Your task to perform on an android device: add a contact in the contacts app Image 0: 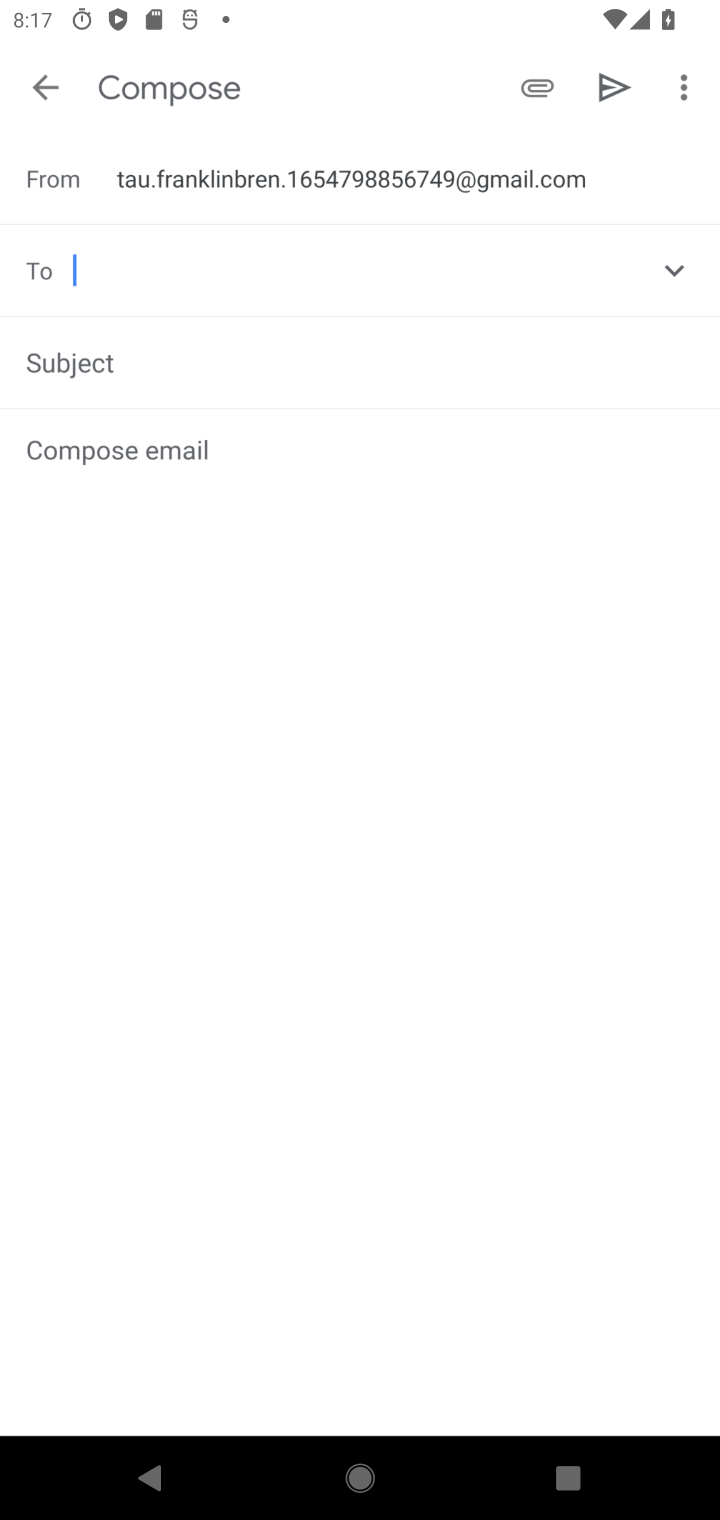
Step 0: press home button
Your task to perform on an android device: add a contact in the contacts app Image 1: 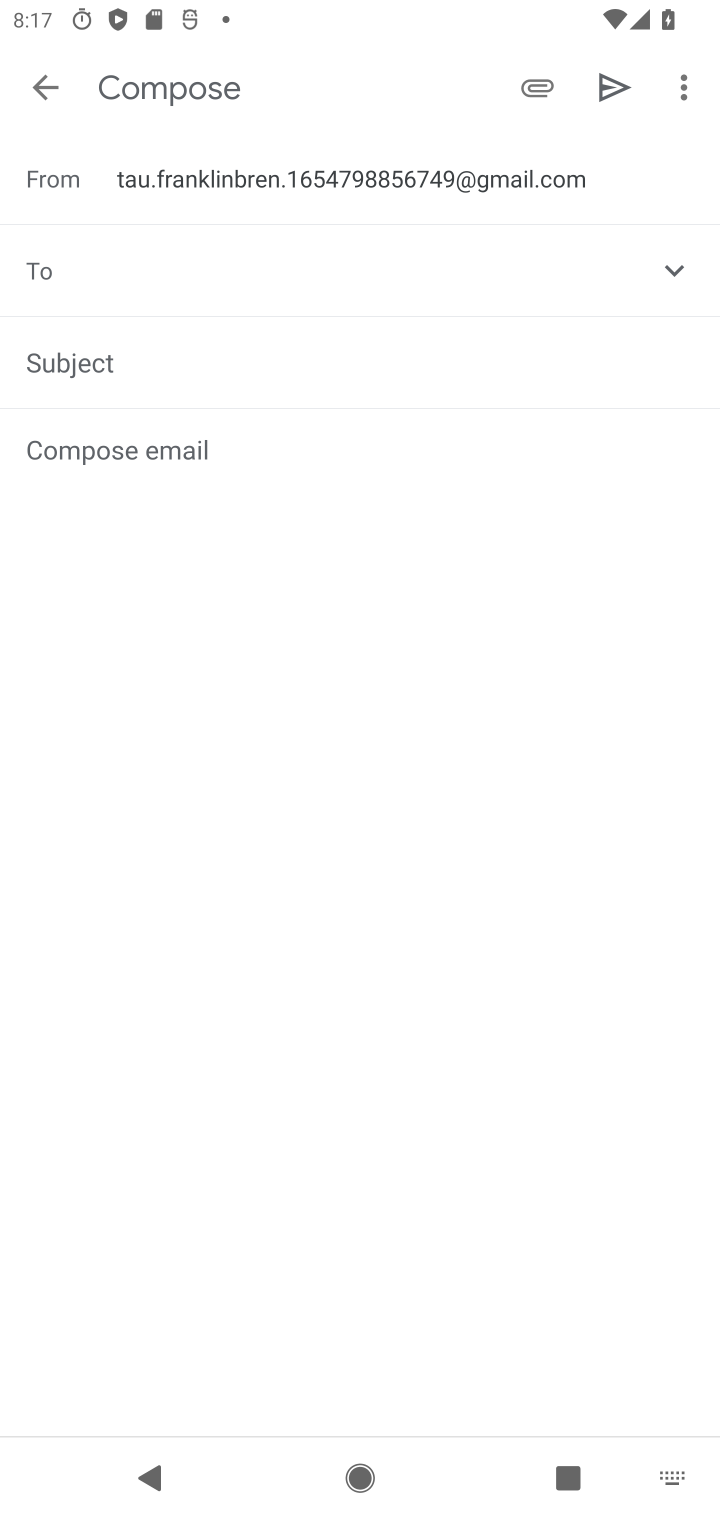
Step 1: press home button
Your task to perform on an android device: add a contact in the contacts app Image 2: 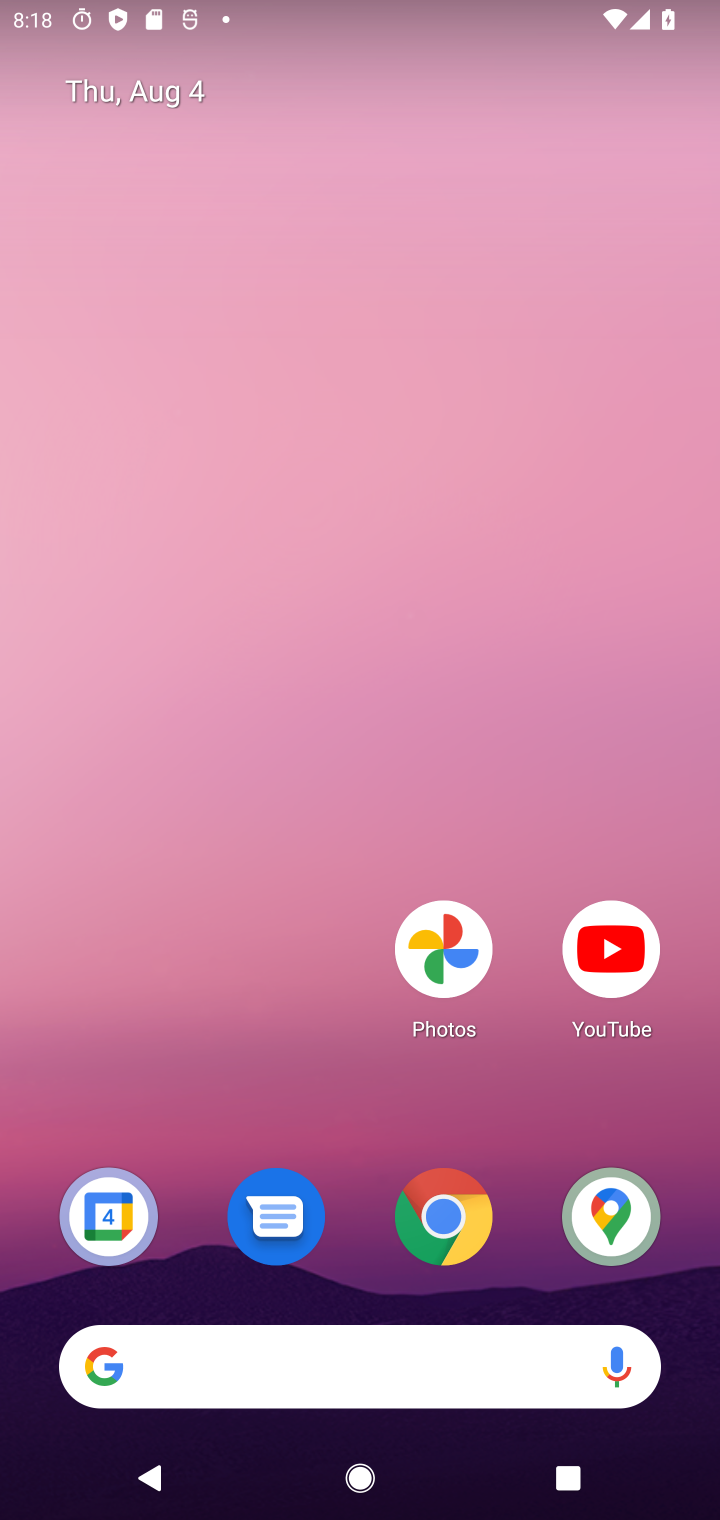
Step 2: drag from (373, 1187) to (353, 261)
Your task to perform on an android device: add a contact in the contacts app Image 3: 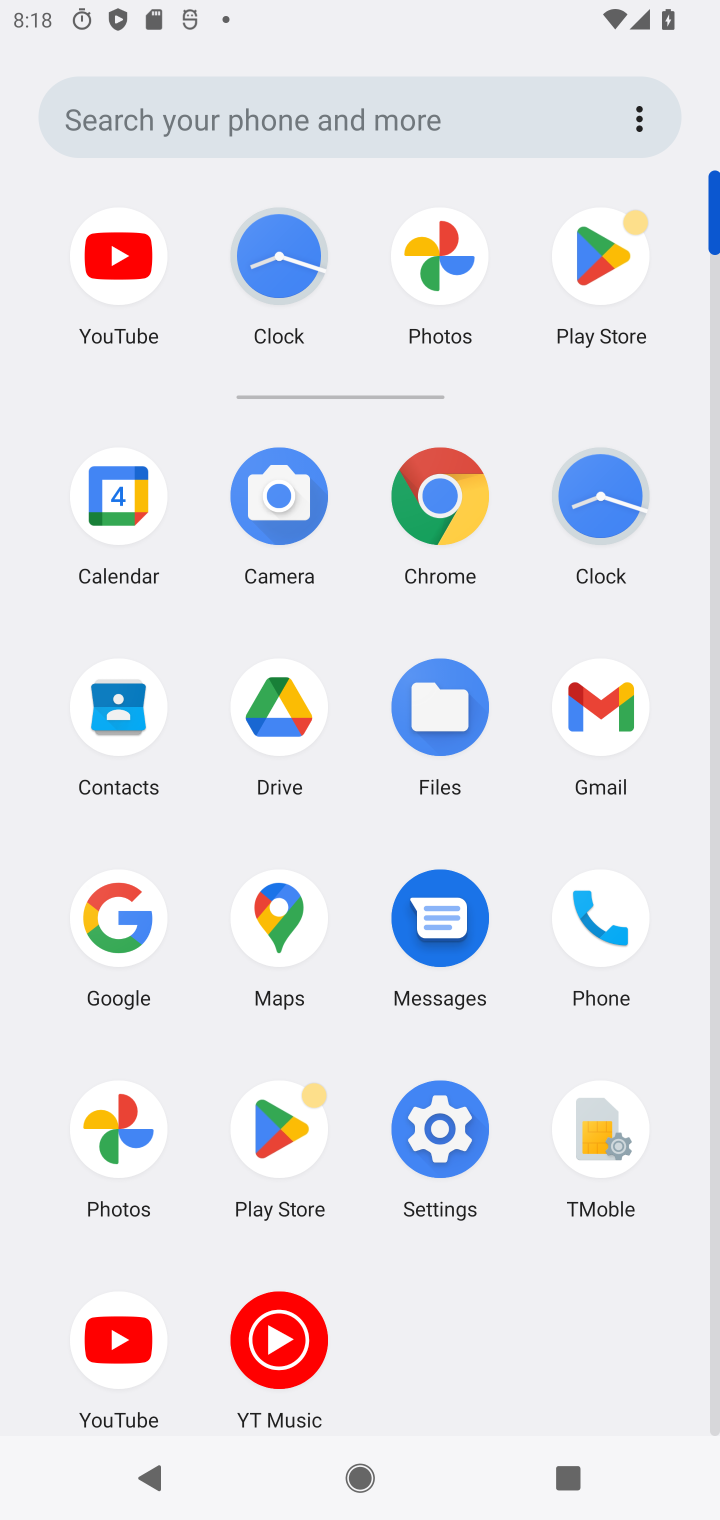
Step 3: click (118, 707)
Your task to perform on an android device: add a contact in the contacts app Image 4: 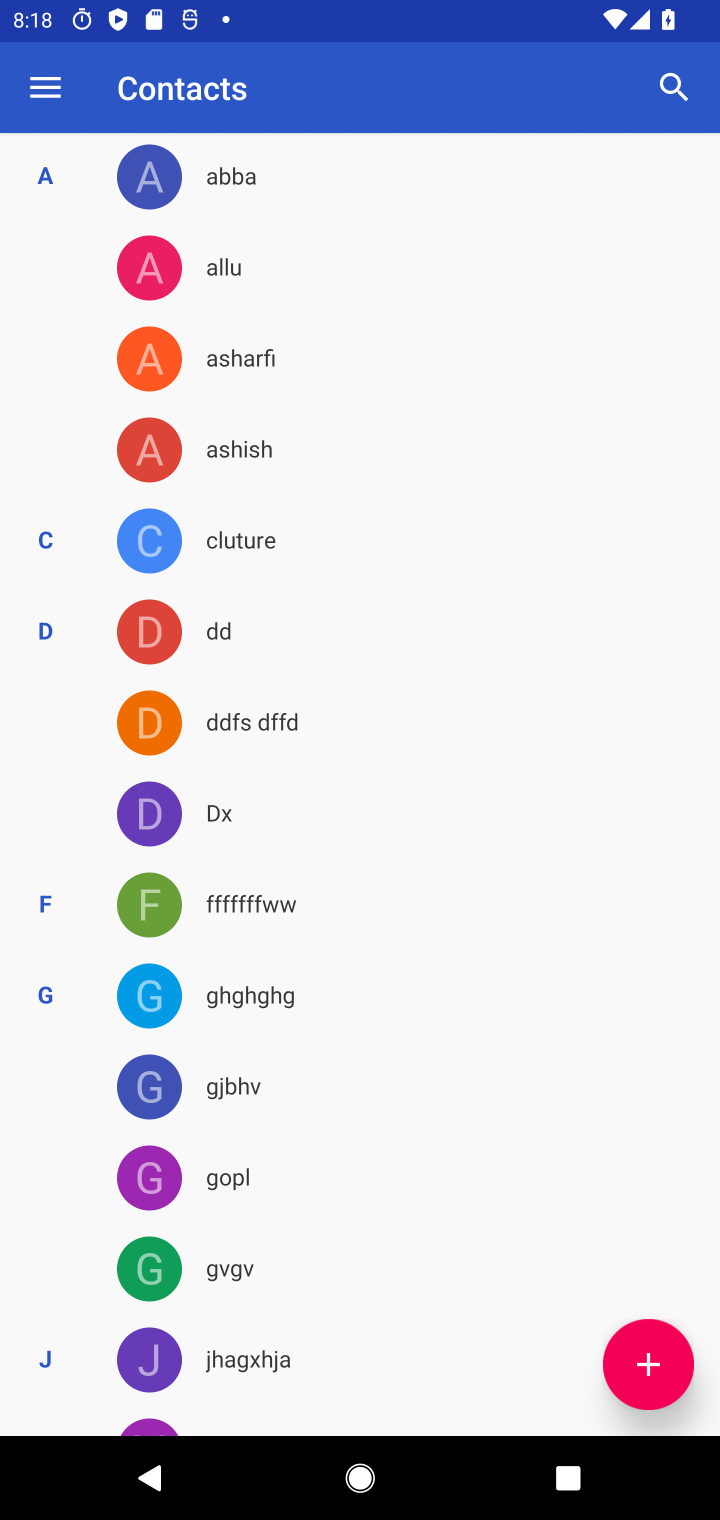
Step 4: click (644, 1367)
Your task to perform on an android device: add a contact in the contacts app Image 5: 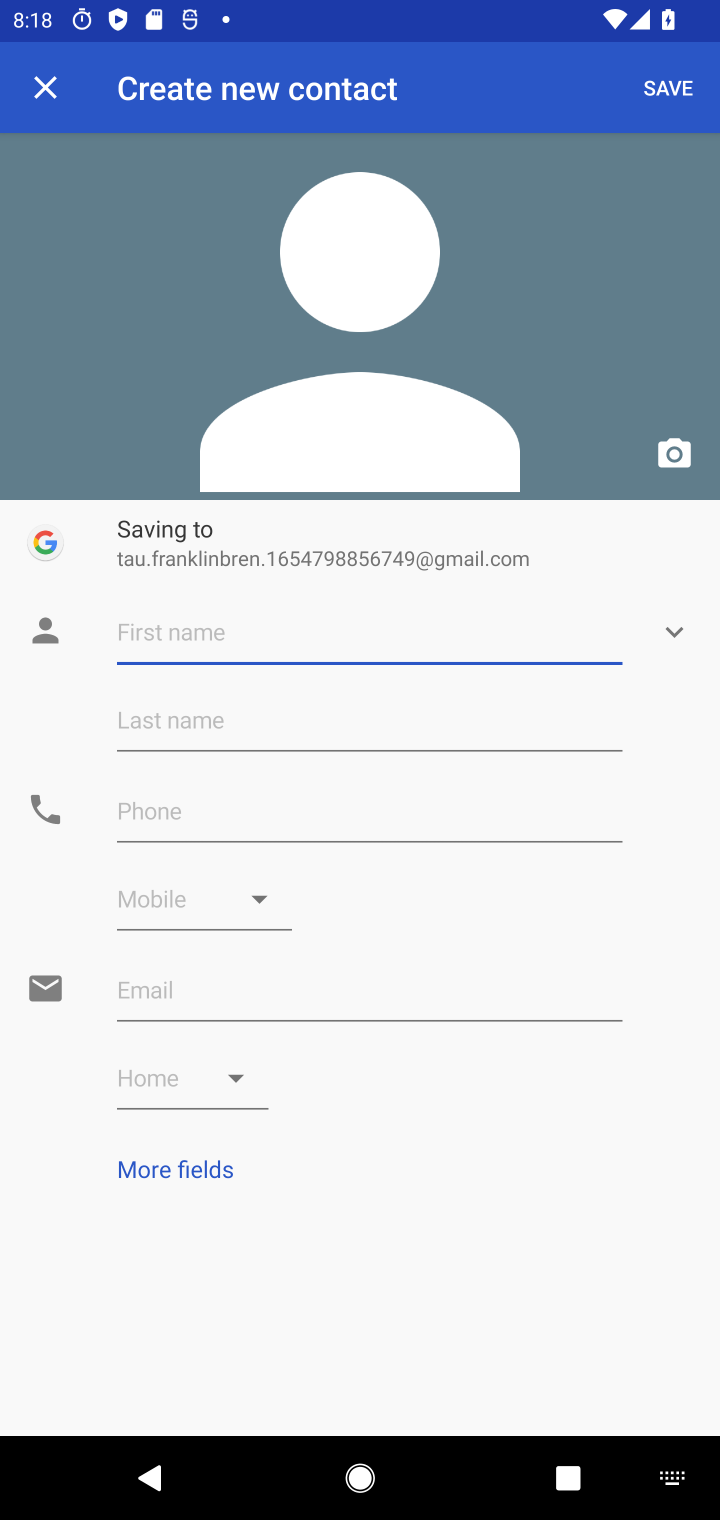
Step 5: type "nikhil nair"
Your task to perform on an android device: add a contact in the contacts app Image 6: 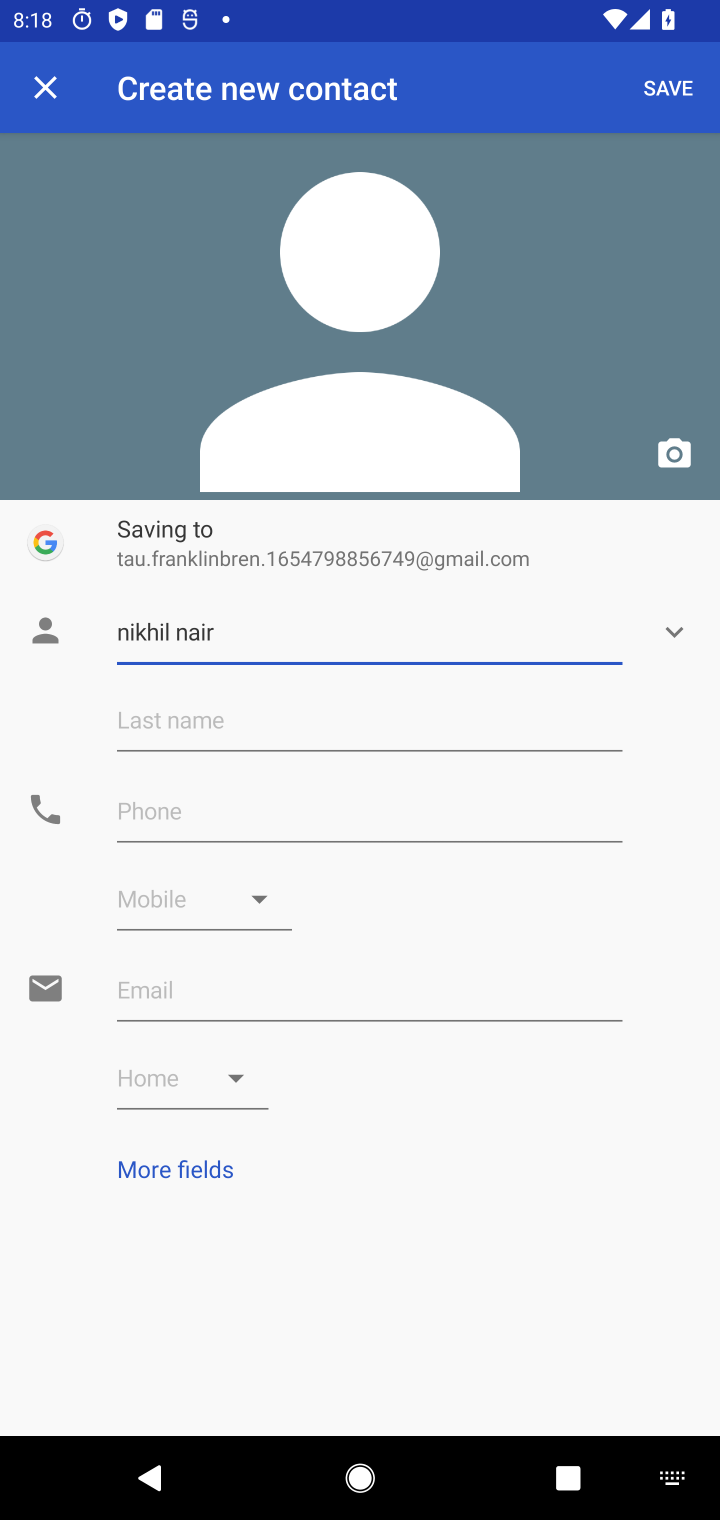
Step 6: click (270, 823)
Your task to perform on an android device: add a contact in the contacts app Image 7: 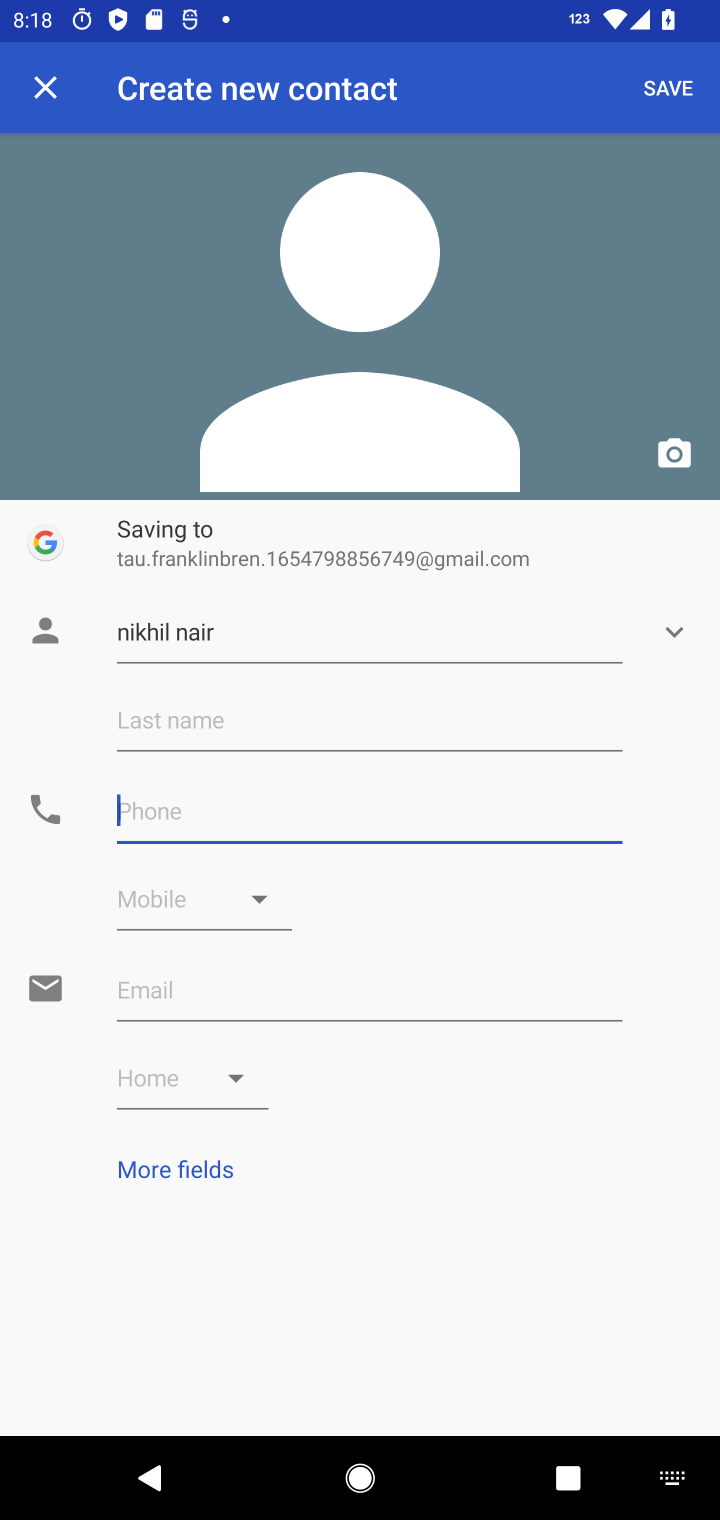
Step 7: type "88948945"
Your task to perform on an android device: add a contact in the contacts app Image 8: 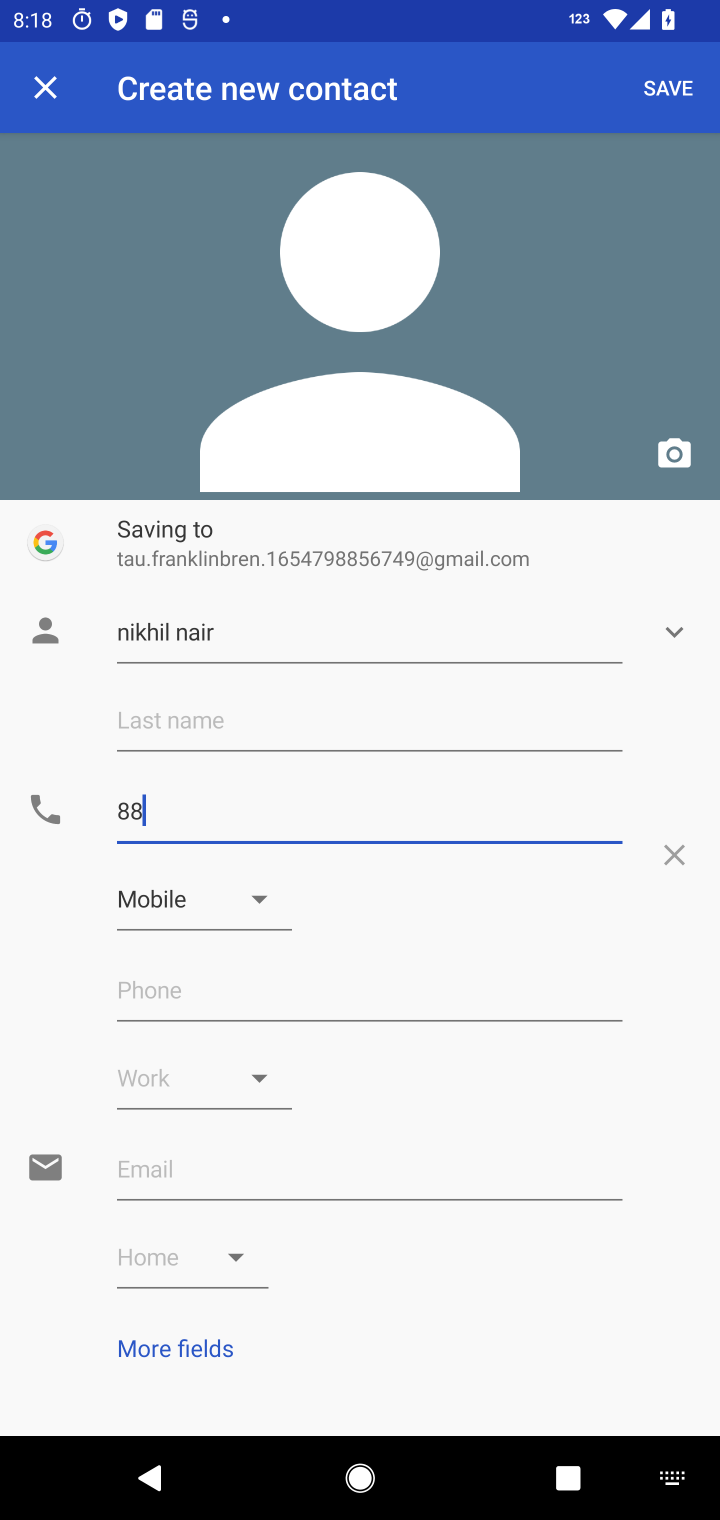
Step 8: type ""
Your task to perform on an android device: add a contact in the contacts app Image 9: 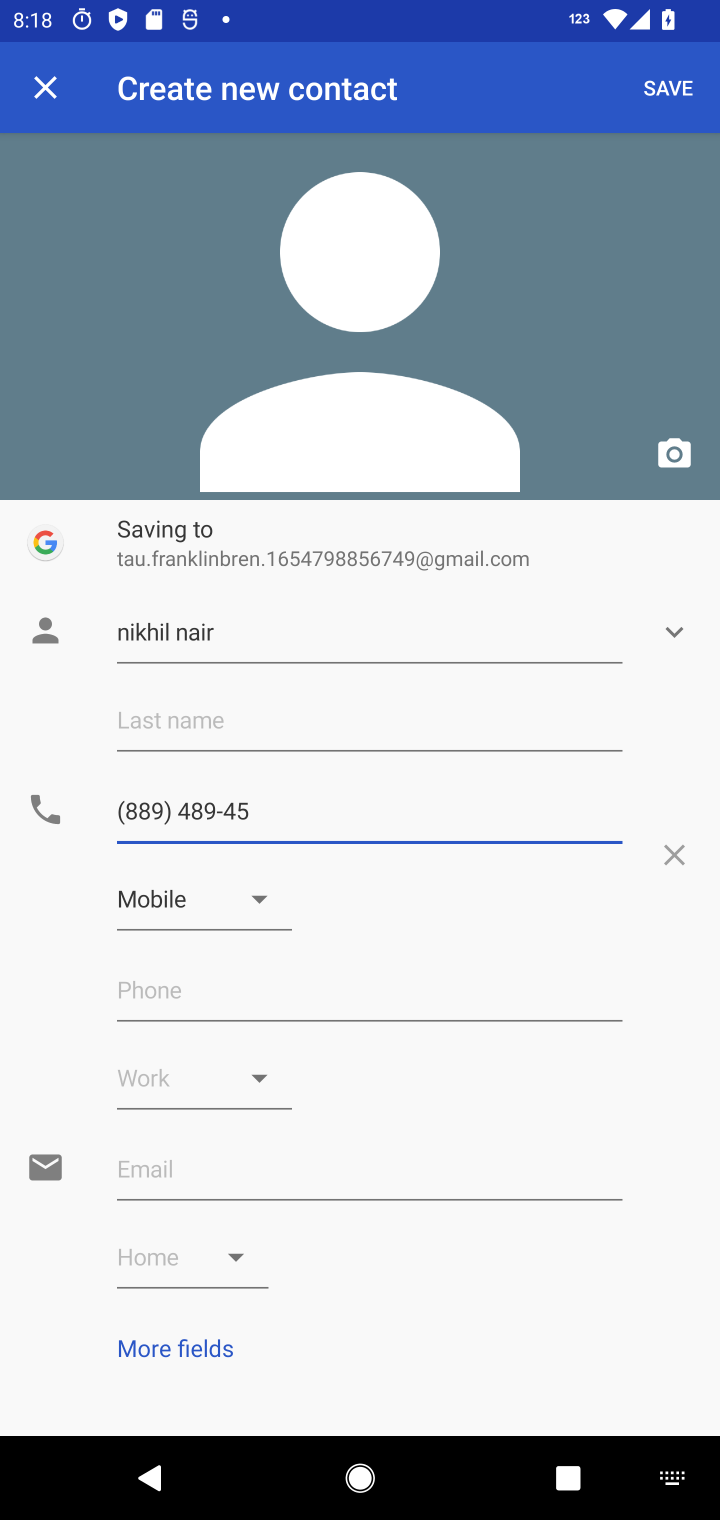
Step 9: click (669, 84)
Your task to perform on an android device: add a contact in the contacts app Image 10: 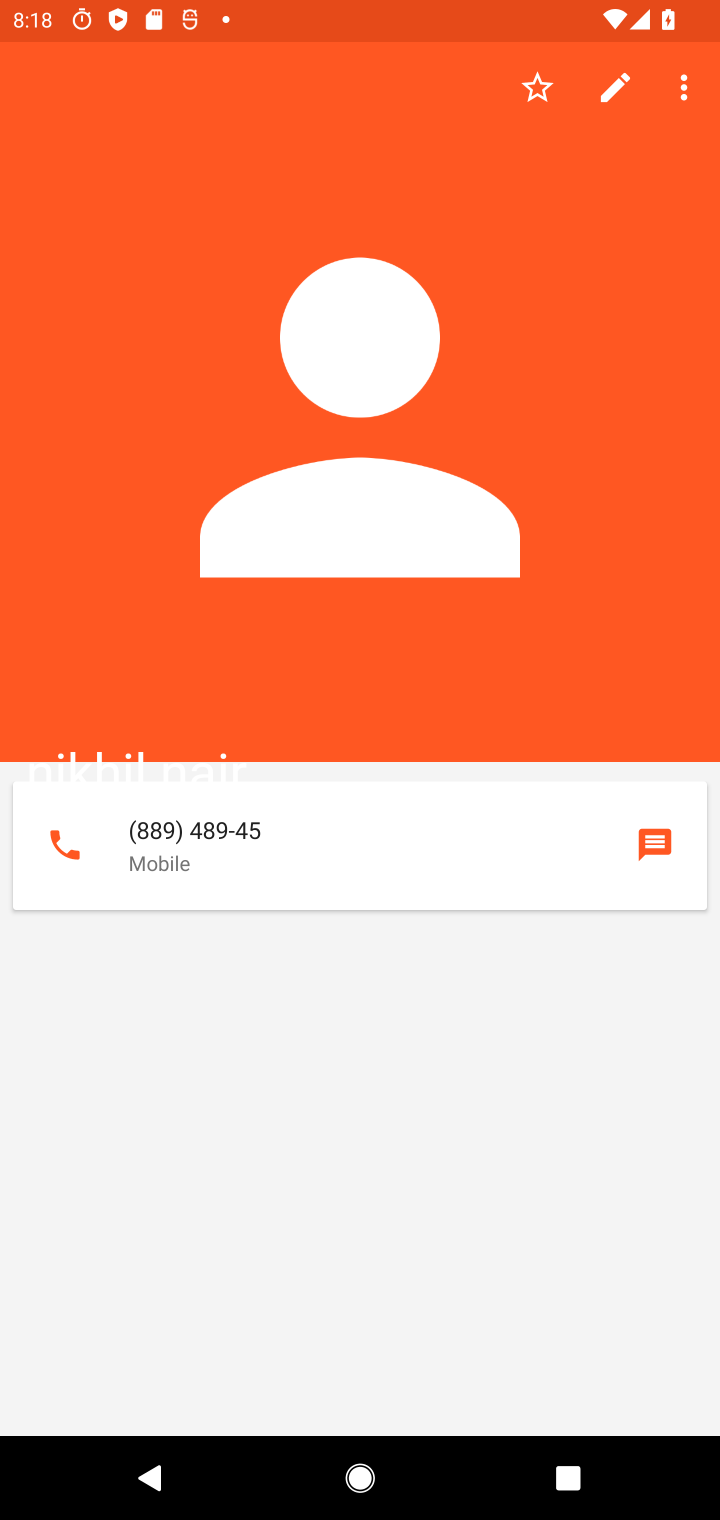
Step 10: task complete